Your task to perform on an android device: Do I have any events today? Image 0: 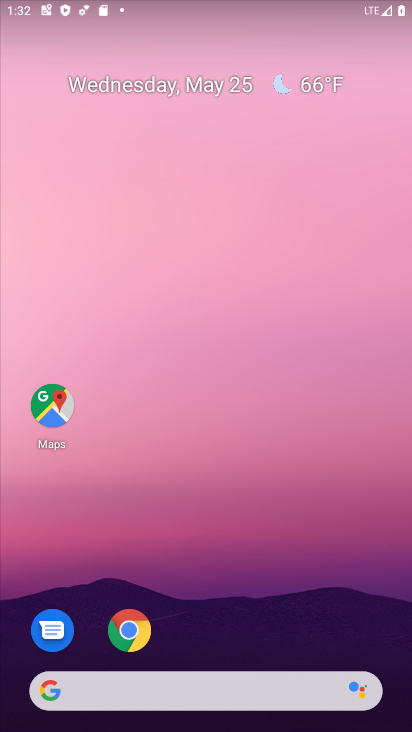
Step 0: press home button
Your task to perform on an android device: Do I have any events today? Image 1: 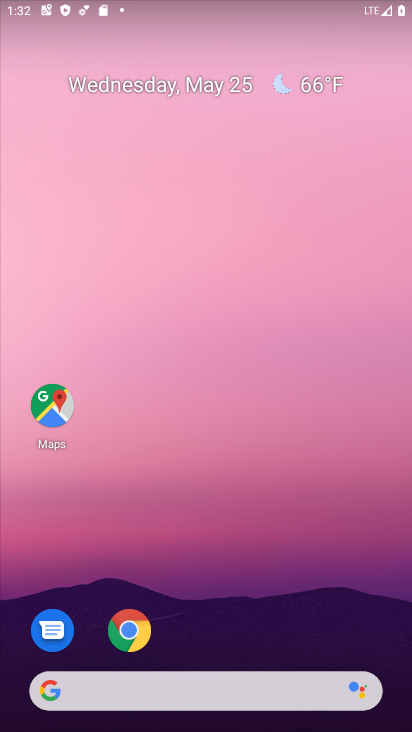
Step 1: drag from (208, 650) to (229, 123)
Your task to perform on an android device: Do I have any events today? Image 2: 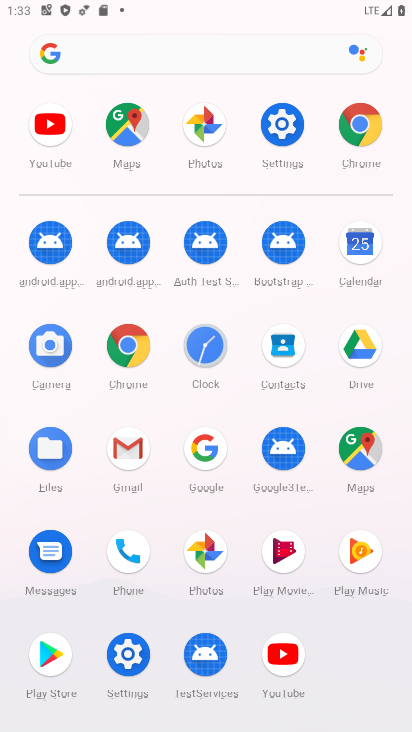
Step 2: click (355, 240)
Your task to perform on an android device: Do I have any events today? Image 3: 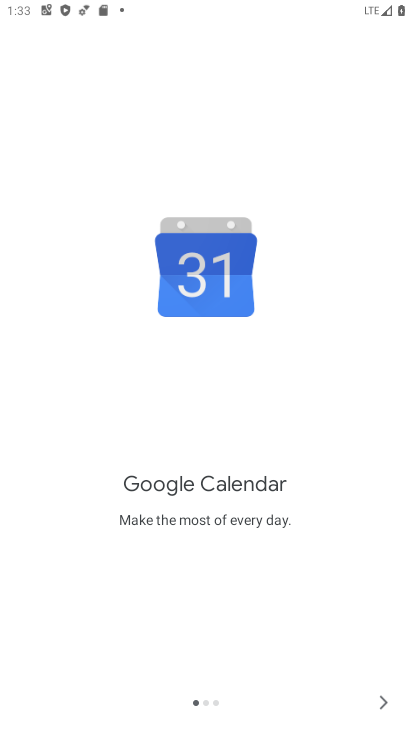
Step 3: click (379, 690)
Your task to perform on an android device: Do I have any events today? Image 4: 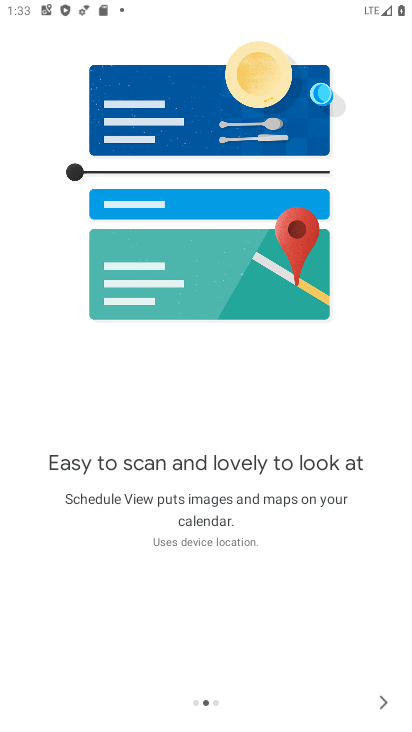
Step 4: click (379, 690)
Your task to perform on an android device: Do I have any events today? Image 5: 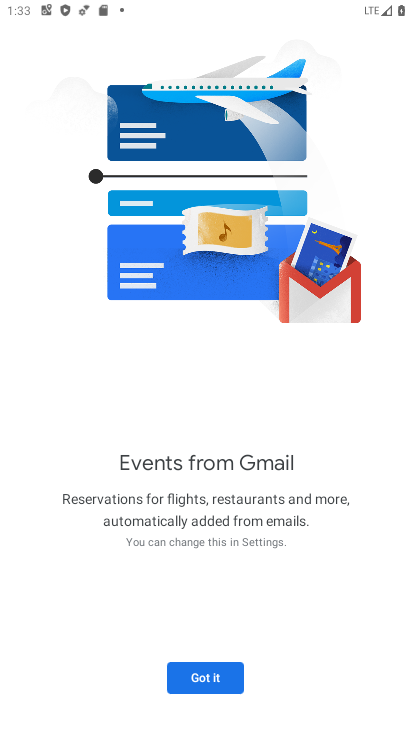
Step 5: click (206, 673)
Your task to perform on an android device: Do I have any events today? Image 6: 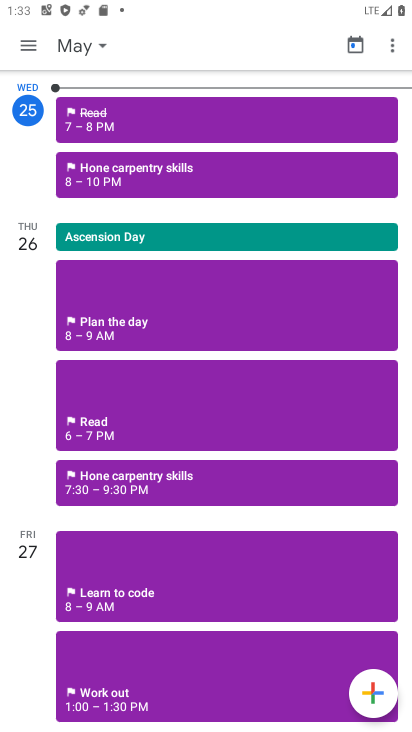
Step 6: click (41, 119)
Your task to perform on an android device: Do I have any events today? Image 7: 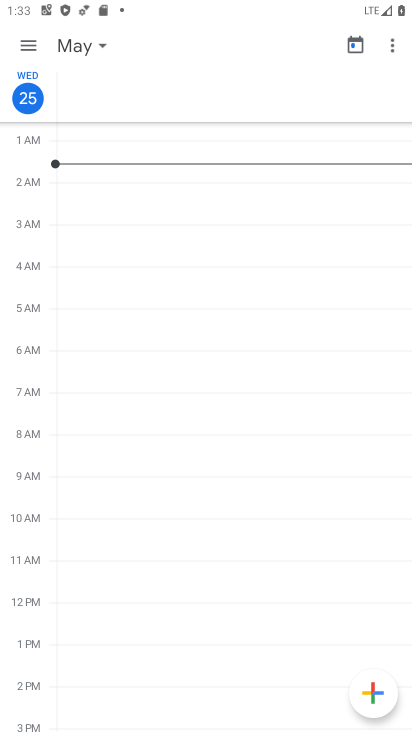
Step 7: task complete